Your task to perform on an android device: uninstall "Adobe Express: Graphic Design" Image 0: 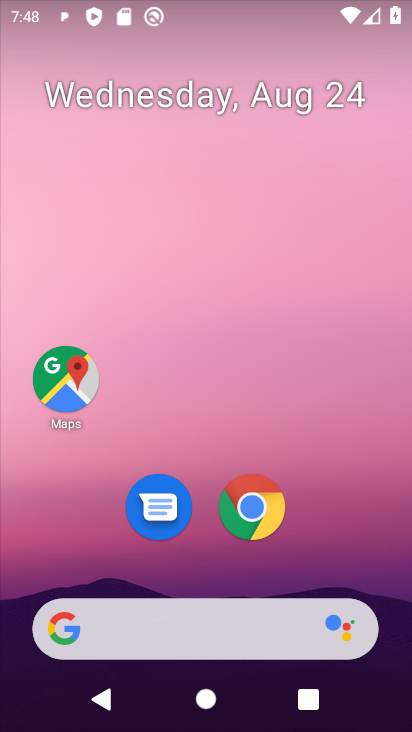
Step 0: press home button
Your task to perform on an android device: uninstall "Adobe Express: Graphic Design" Image 1: 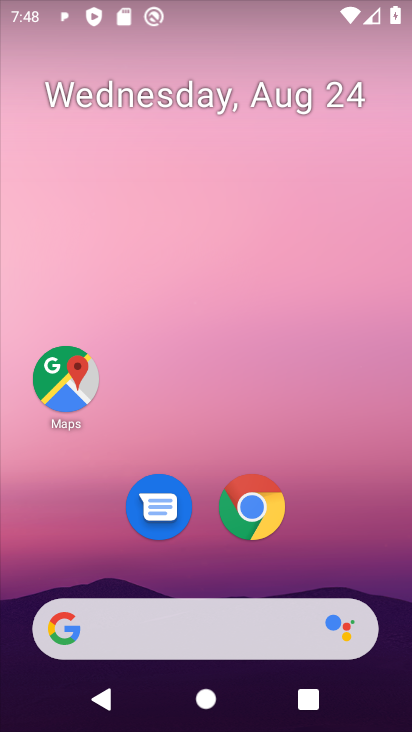
Step 1: drag from (372, 552) to (389, 106)
Your task to perform on an android device: uninstall "Adobe Express: Graphic Design" Image 2: 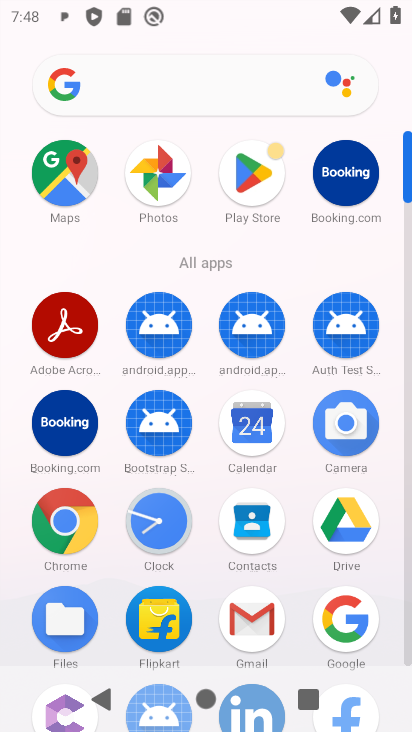
Step 2: click (260, 175)
Your task to perform on an android device: uninstall "Adobe Express: Graphic Design" Image 3: 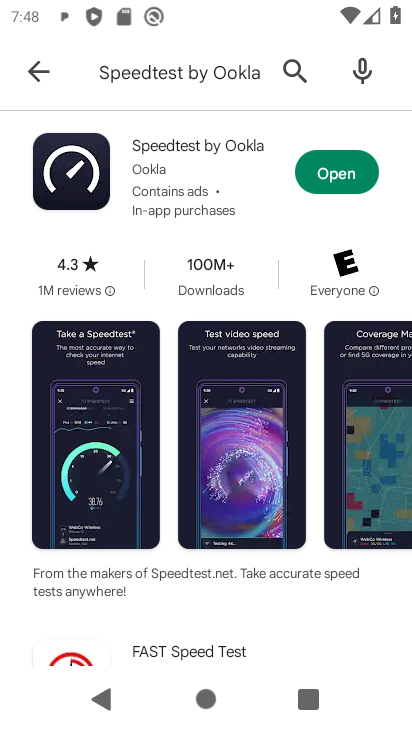
Step 3: press back button
Your task to perform on an android device: uninstall "Adobe Express: Graphic Design" Image 4: 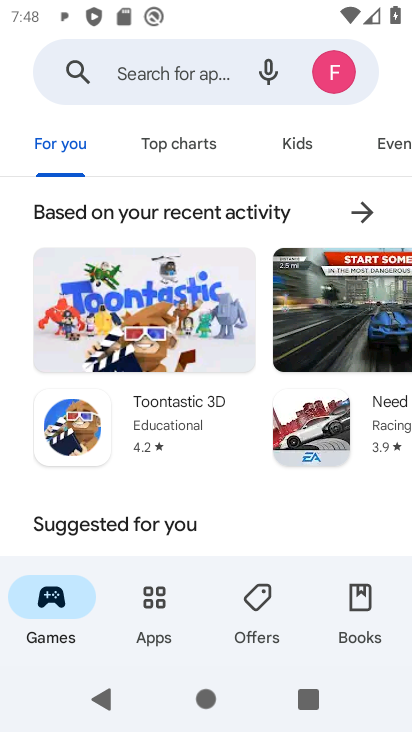
Step 4: click (193, 71)
Your task to perform on an android device: uninstall "Adobe Express: Graphic Design" Image 5: 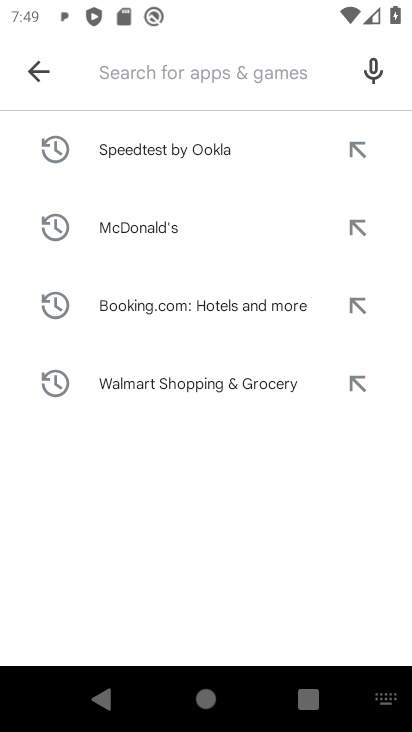
Step 5: press enter
Your task to perform on an android device: uninstall "Adobe Express: Graphic Design" Image 6: 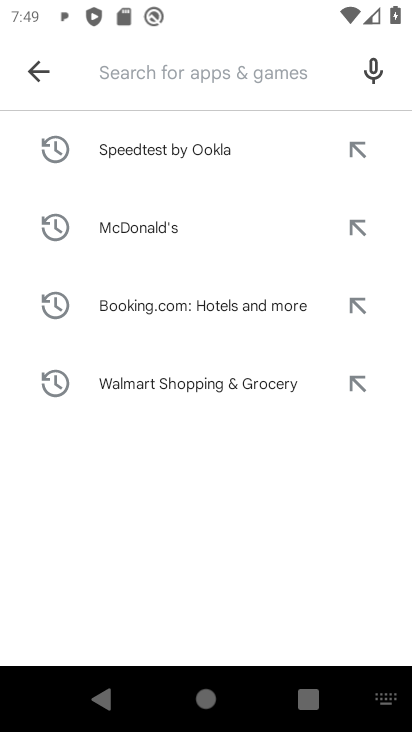
Step 6: type "Adobe Express: Graphic Design"
Your task to perform on an android device: uninstall "Adobe Express: Graphic Design" Image 7: 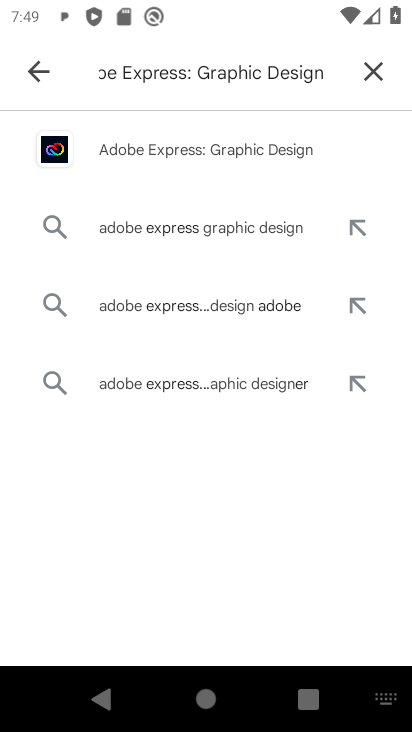
Step 7: click (284, 147)
Your task to perform on an android device: uninstall "Adobe Express: Graphic Design" Image 8: 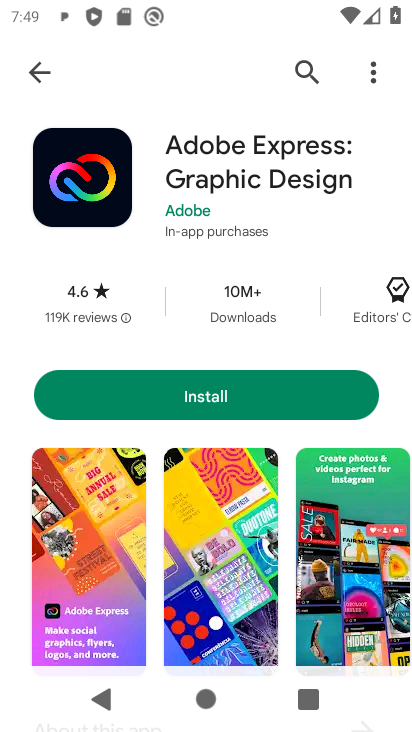
Step 8: task complete